Your task to perform on an android device: find photos in the google photos app Image 0: 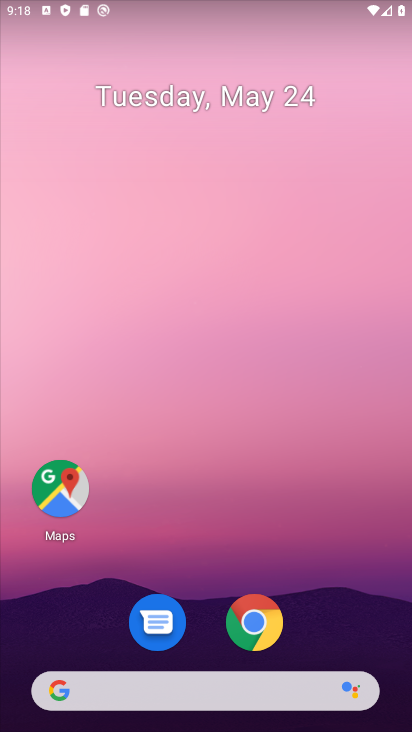
Step 0: press home button
Your task to perform on an android device: find photos in the google photos app Image 1: 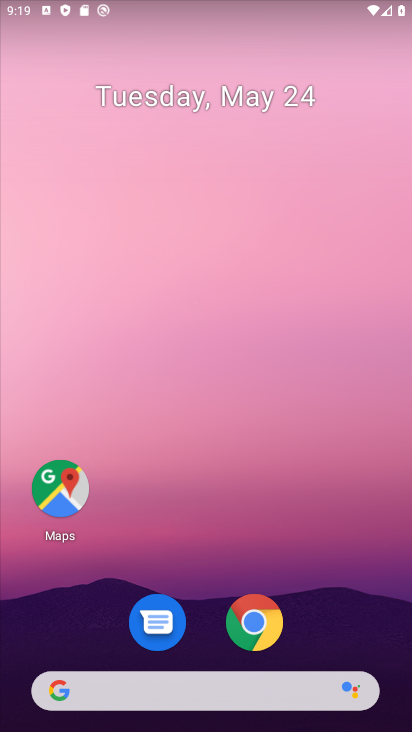
Step 1: drag from (296, 727) to (359, 132)
Your task to perform on an android device: find photos in the google photos app Image 2: 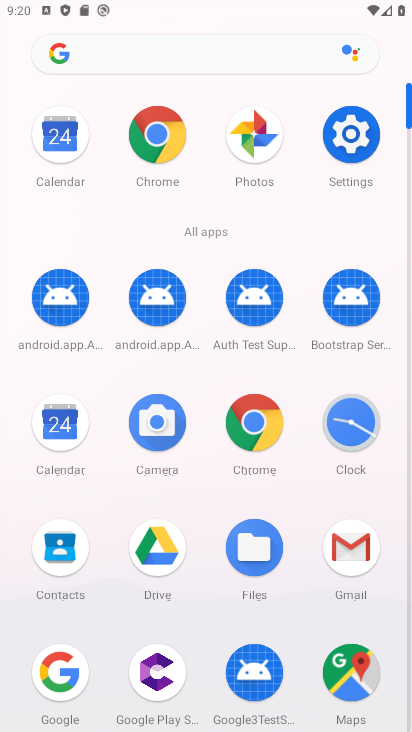
Step 2: drag from (223, 605) to (252, 348)
Your task to perform on an android device: find photos in the google photos app Image 3: 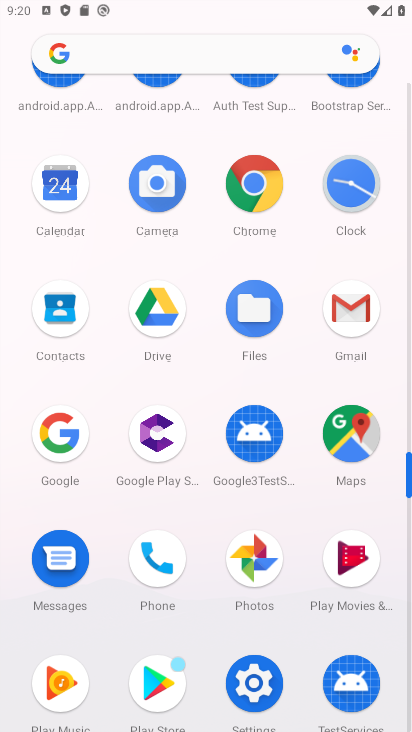
Step 3: click (231, 571)
Your task to perform on an android device: find photos in the google photos app Image 4: 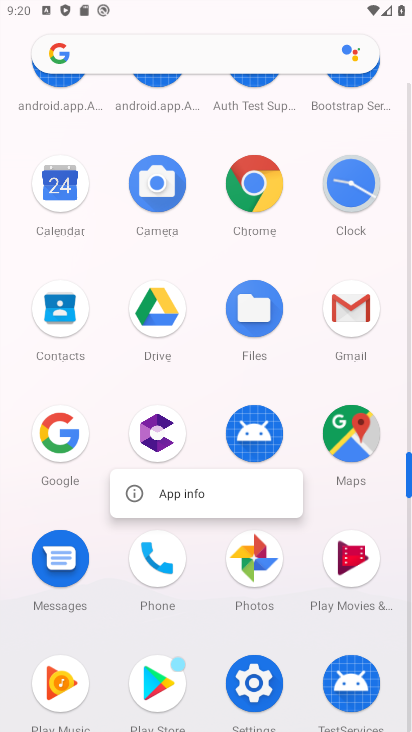
Step 4: click (259, 546)
Your task to perform on an android device: find photos in the google photos app Image 5: 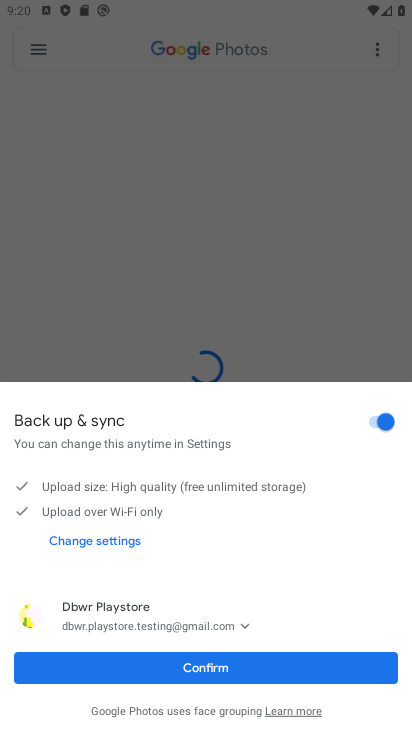
Step 5: click (275, 665)
Your task to perform on an android device: find photos in the google photos app Image 6: 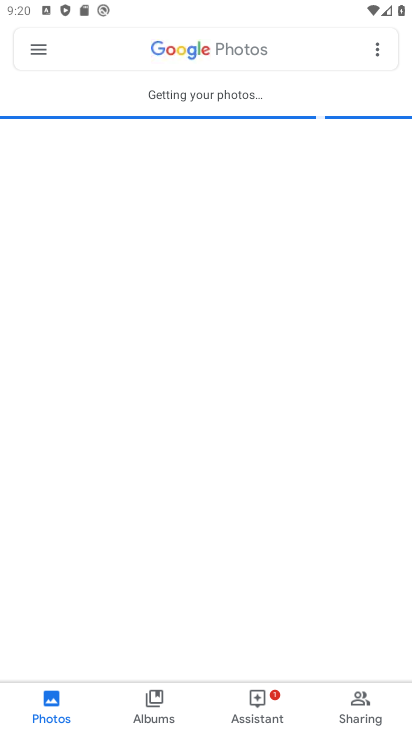
Step 6: click (44, 49)
Your task to perform on an android device: find photos in the google photos app Image 7: 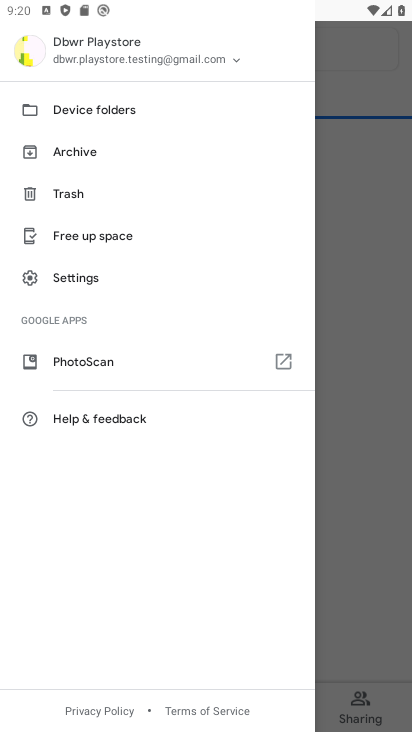
Step 7: click (365, 282)
Your task to perform on an android device: find photos in the google photos app Image 8: 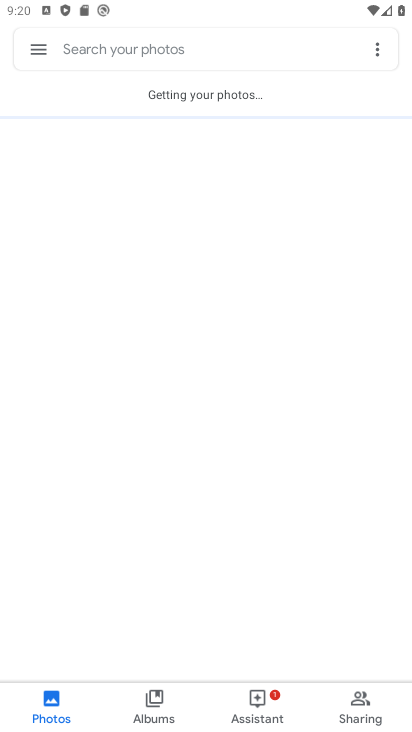
Step 8: task complete